Your task to perform on an android device: Open the Play Movies app and select the watchlist tab. Image 0: 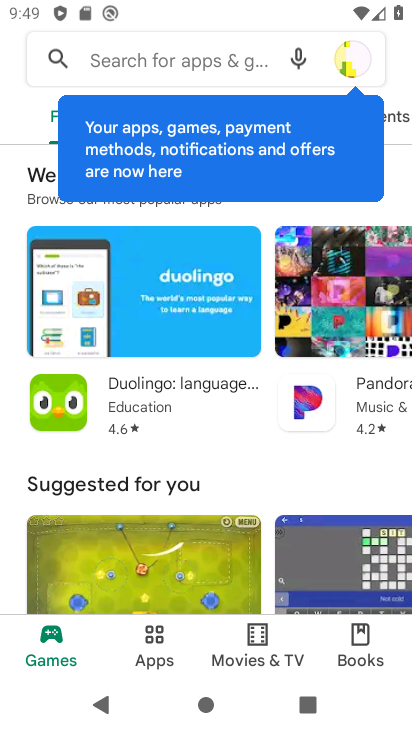
Step 0: press home button
Your task to perform on an android device: Open the Play Movies app and select the watchlist tab. Image 1: 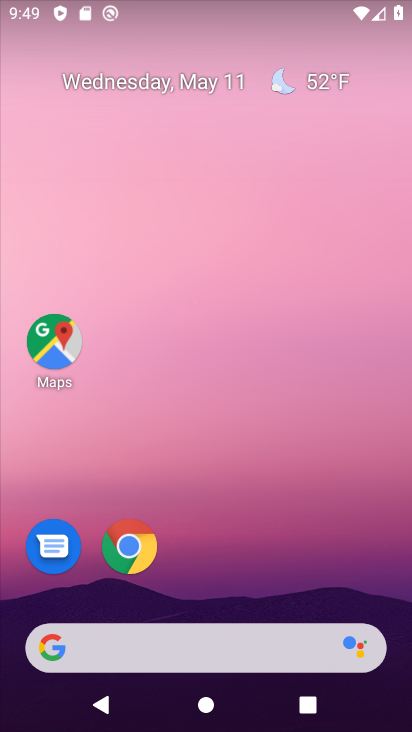
Step 1: drag from (204, 640) to (324, 35)
Your task to perform on an android device: Open the Play Movies app and select the watchlist tab. Image 2: 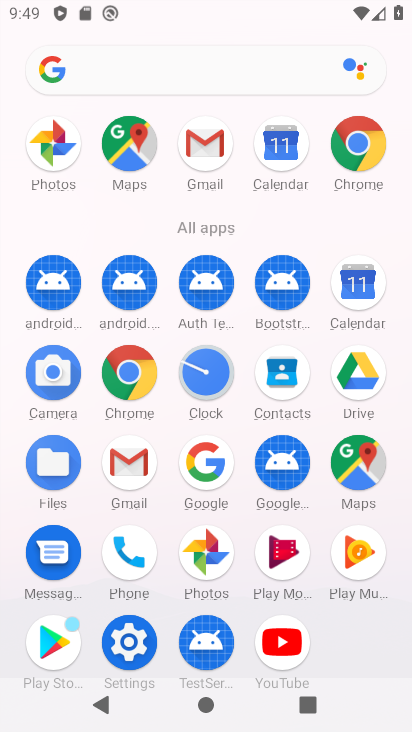
Step 2: click (300, 577)
Your task to perform on an android device: Open the Play Movies app and select the watchlist tab. Image 3: 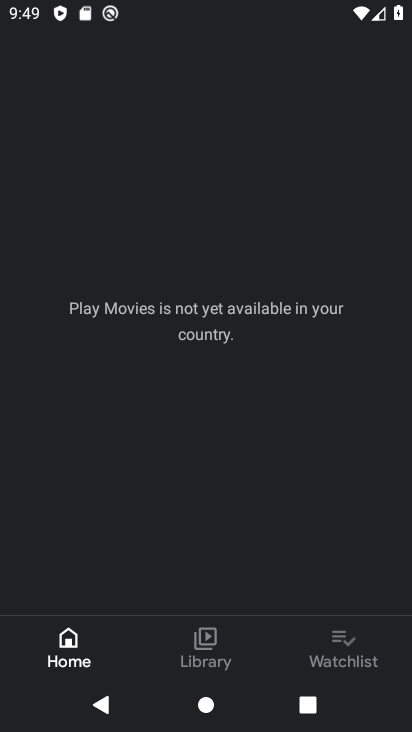
Step 3: click (377, 663)
Your task to perform on an android device: Open the Play Movies app and select the watchlist tab. Image 4: 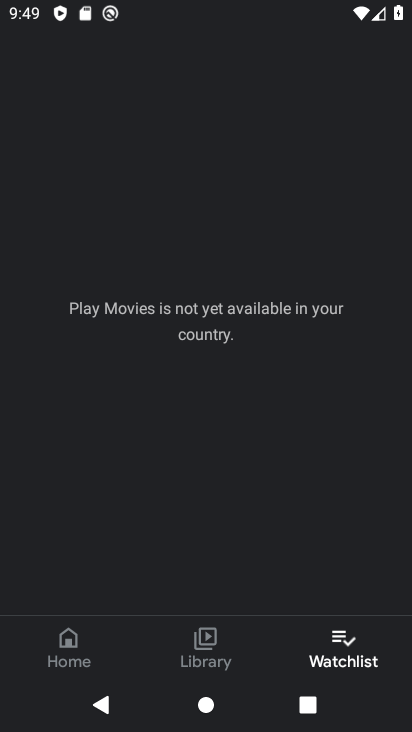
Step 4: click (376, 663)
Your task to perform on an android device: Open the Play Movies app and select the watchlist tab. Image 5: 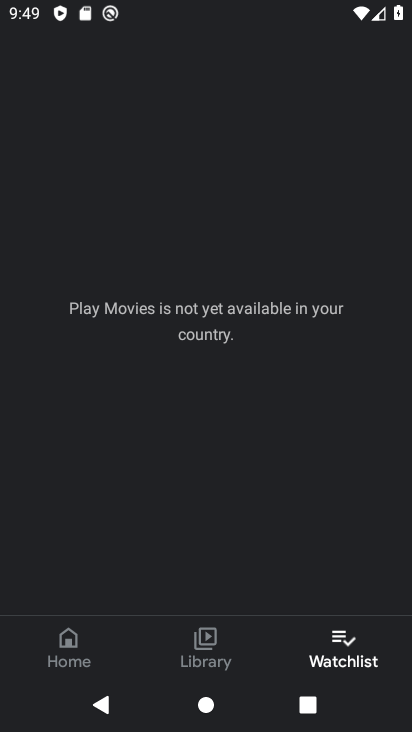
Step 5: task complete